Your task to perform on an android device: delete browsing data in the chrome app Image 0: 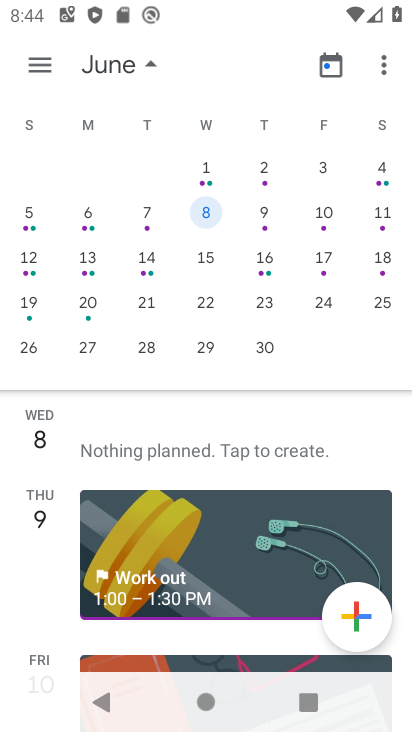
Step 0: press home button
Your task to perform on an android device: delete browsing data in the chrome app Image 1: 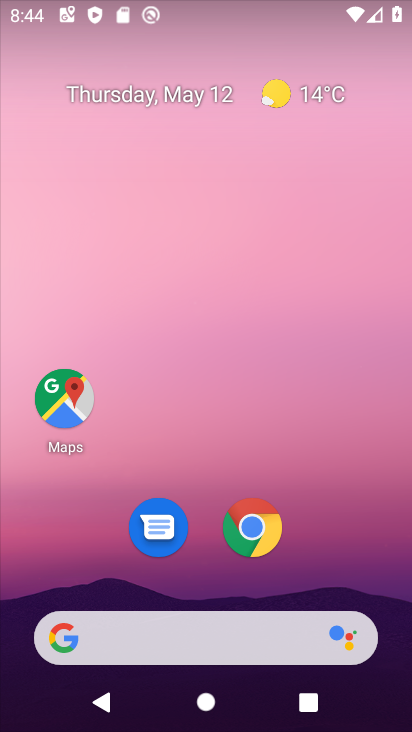
Step 1: drag from (352, 534) to (330, 158)
Your task to perform on an android device: delete browsing data in the chrome app Image 2: 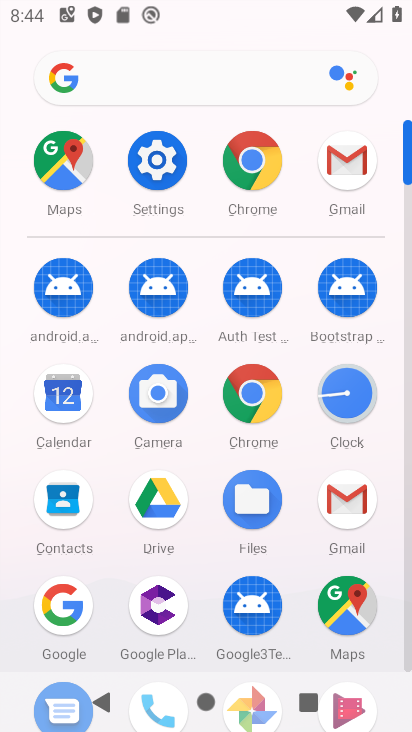
Step 2: click (239, 139)
Your task to perform on an android device: delete browsing data in the chrome app Image 3: 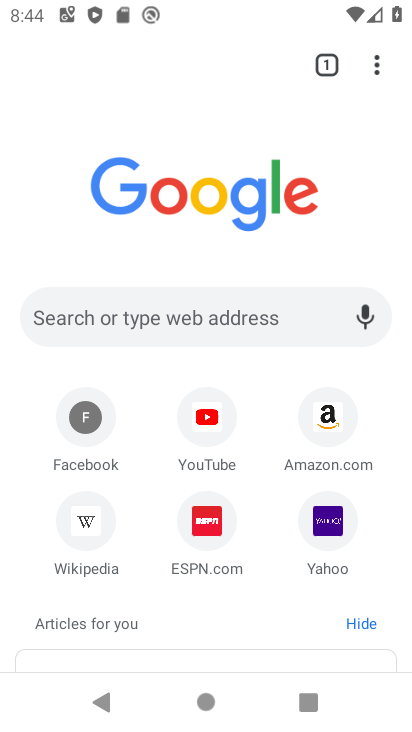
Step 3: click (381, 55)
Your task to perform on an android device: delete browsing data in the chrome app Image 4: 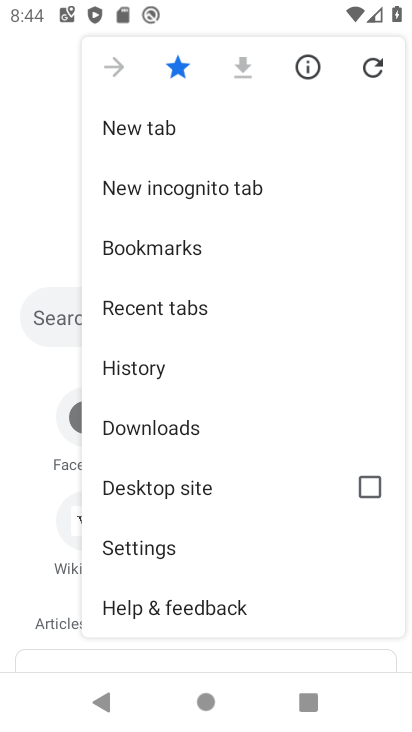
Step 4: click (242, 540)
Your task to perform on an android device: delete browsing data in the chrome app Image 5: 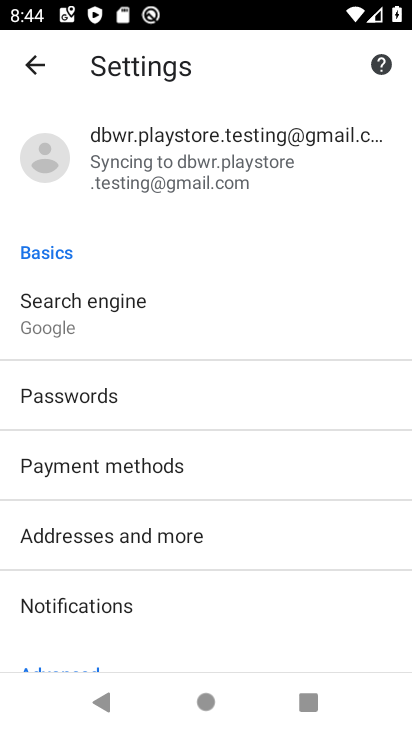
Step 5: drag from (230, 602) to (276, 383)
Your task to perform on an android device: delete browsing data in the chrome app Image 6: 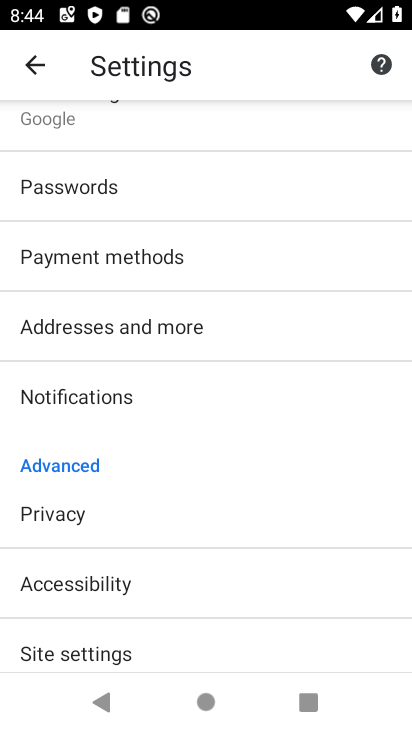
Step 6: click (41, 59)
Your task to perform on an android device: delete browsing data in the chrome app Image 7: 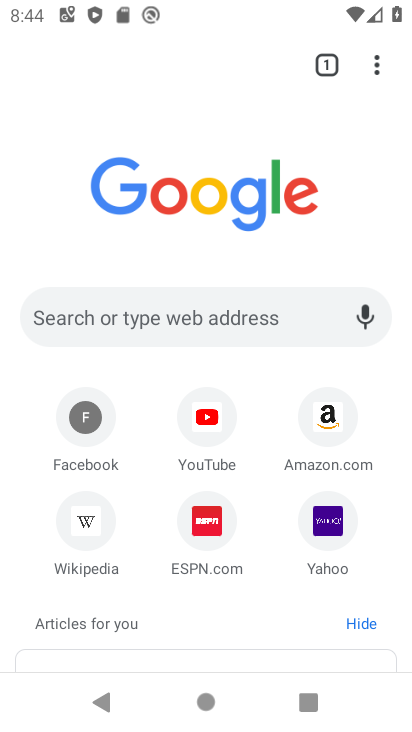
Step 7: click (383, 72)
Your task to perform on an android device: delete browsing data in the chrome app Image 8: 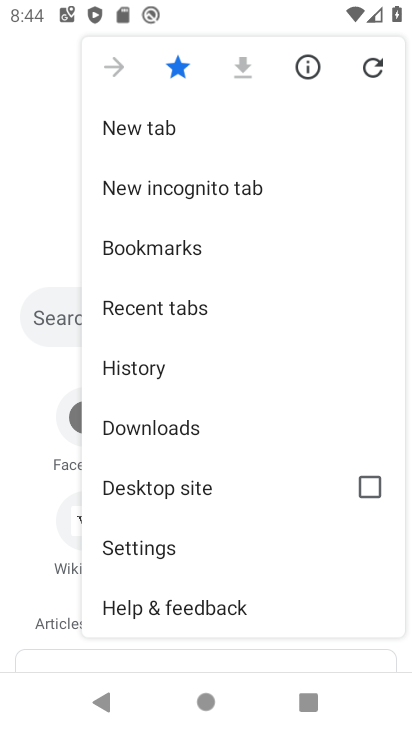
Step 8: click (228, 371)
Your task to perform on an android device: delete browsing data in the chrome app Image 9: 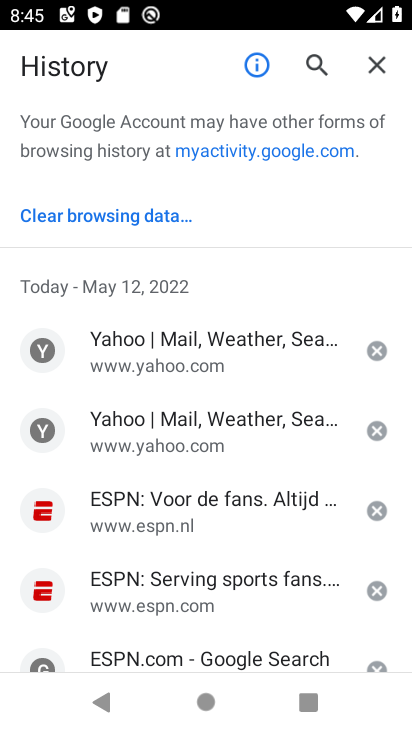
Step 9: click (162, 200)
Your task to perform on an android device: delete browsing data in the chrome app Image 10: 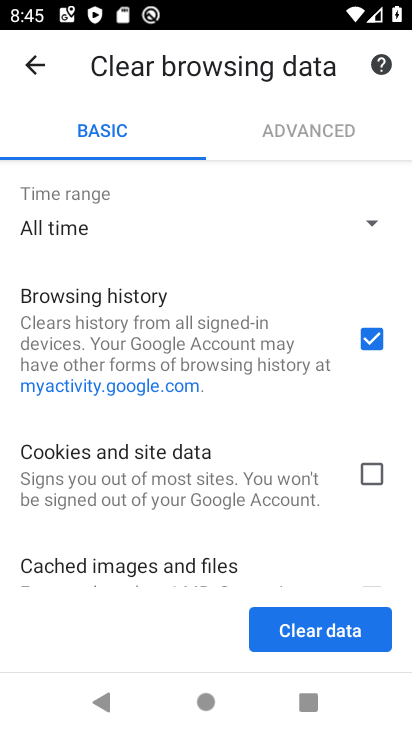
Step 10: click (364, 638)
Your task to perform on an android device: delete browsing data in the chrome app Image 11: 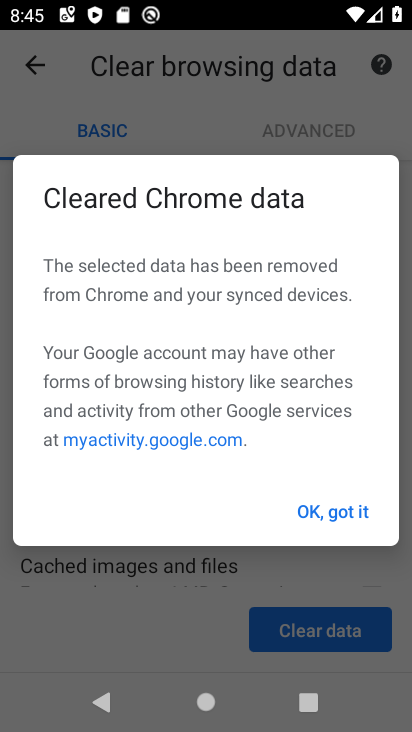
Step 11: click (340, 501)
Your task to perform on an android device: delete browsing data in the chrome app Image 12: 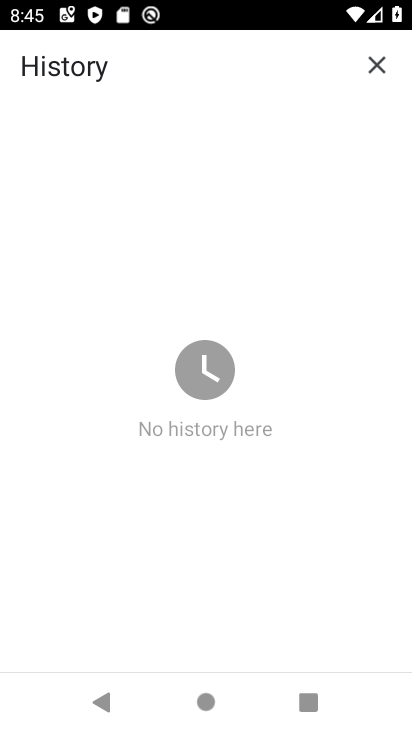
Step 12: task complete